Your task to perform on an android device: clear history in the chrome app Image 0: 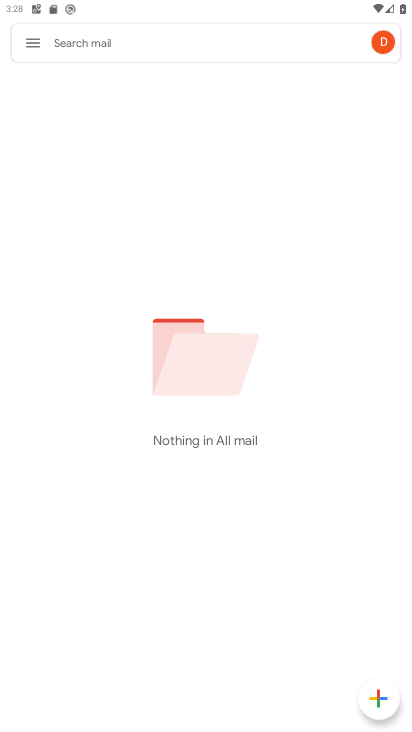
Step 0: press home button
Your task to perform on an android device: clear history in the chrome app Image 1: 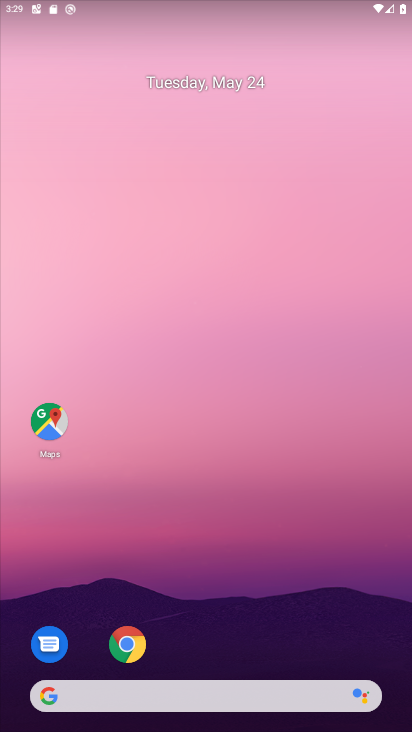
Step 1: click (118, 652)
Your task to perform on an android device: clear history in the chrome app Image 2: 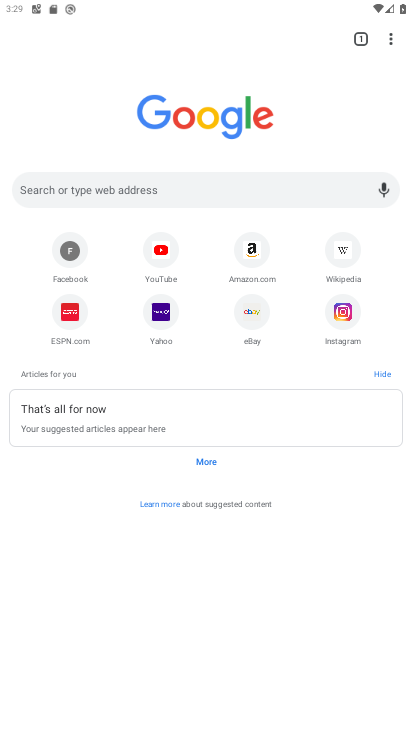
Step 2: click (397, 40)
Your task to perform on an android device: clear history in the chrome app Image 3: 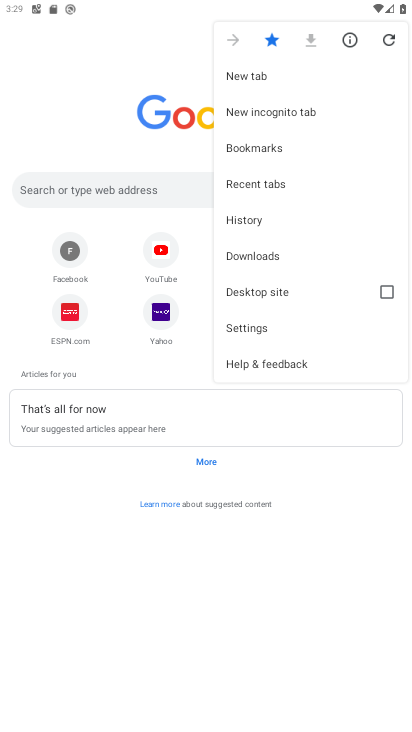
Step 3: click (289, 228)
Your task to perform on an android device: clear history in the chrome app Image 4: 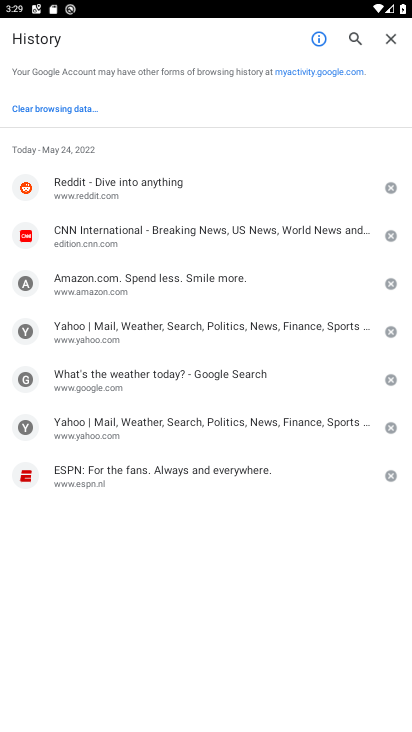
Step 4: click (75, 109)
Your task to perform on an android device: clear history in the chrome app Image 5: 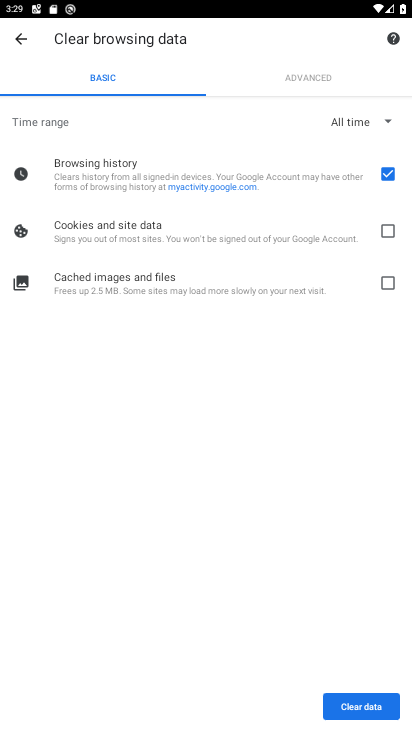
Step 5: click (378, 693)
Your task to perform on an android device: clear history in the chrome app Image 6: 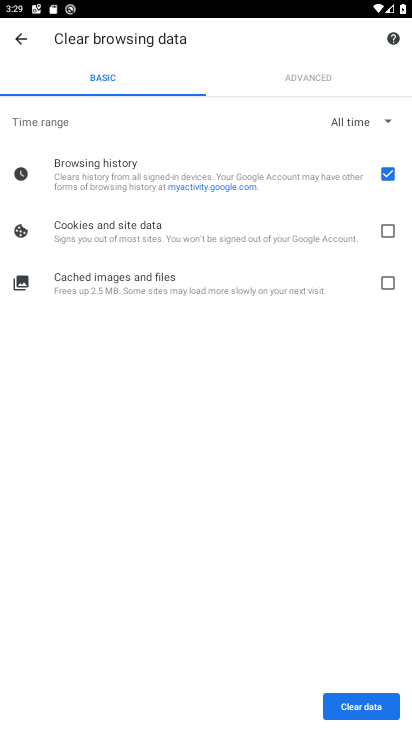
Step 6: click (384, 707)
Your task to perform on an android device: clear history in the chrome app Image 7: 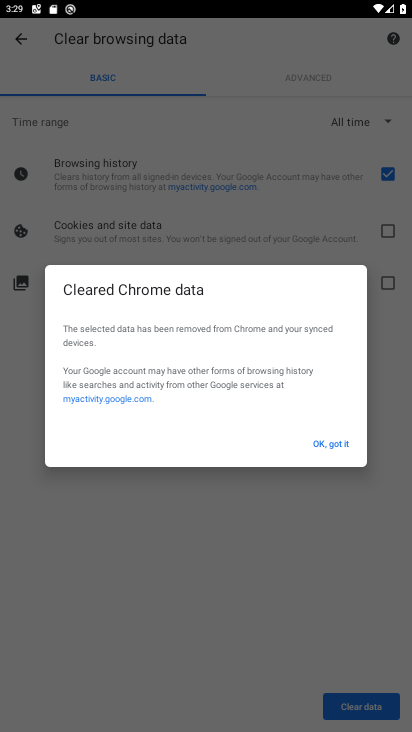
Step 7: click (330, 443)
Your task to perform on an android device: clear history in the chrome app Image 8: 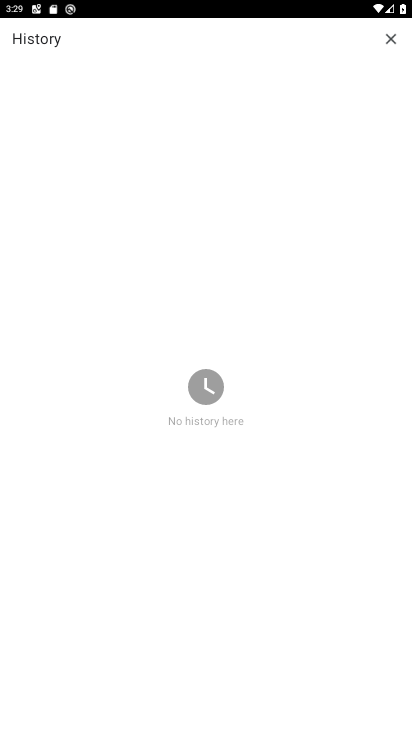
Step 8: task complete